Your task to perform on an android device: open a new tab in the chrome app Image 0: 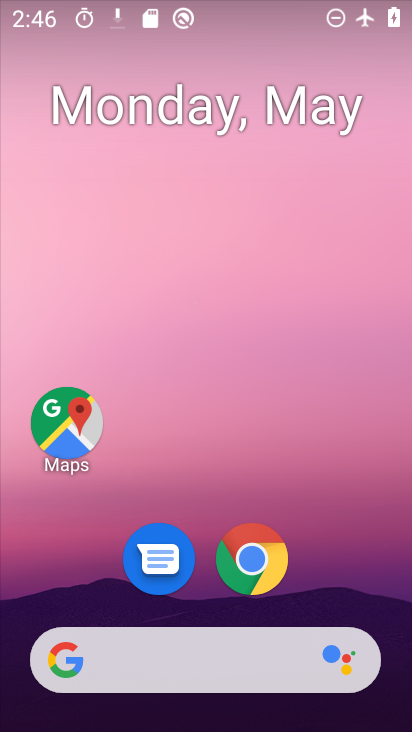
Step 0: drag from (188, 565) to (388, 213)
Your task to perform on an android device: open a new tab in the chrome app Image 1: 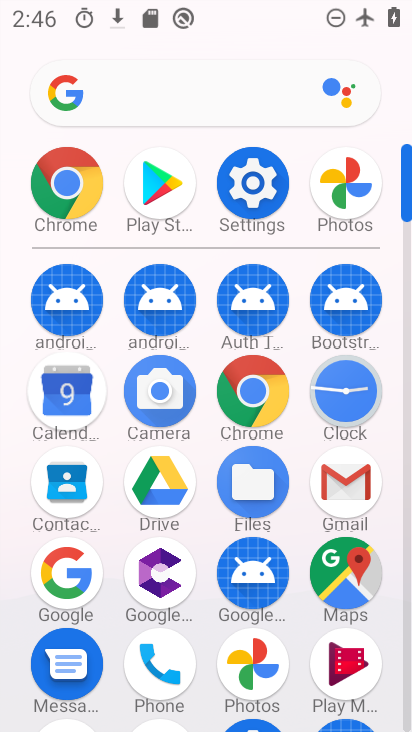
Step 1: click (251, 388)
Your task to perform on an android device: open a new tab in the chrome app Image 2: 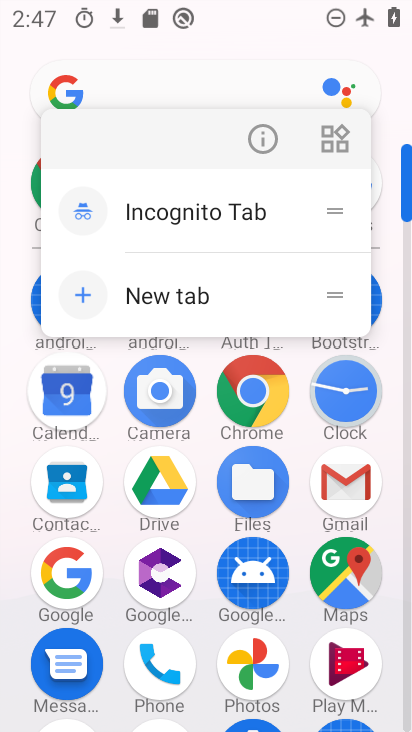
Step 2: click (259, 158)
Your task to perform on an android device: open a new tab in the chrome app Image 3: 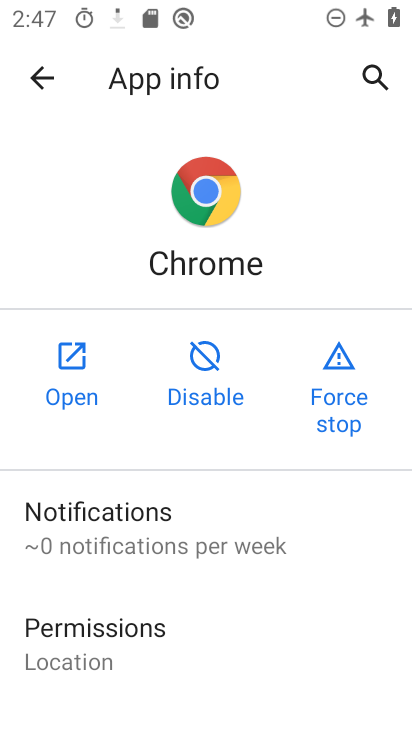
Step 3: click (71, 360)
Your task to perform on an android device: open a new tab in the chrome app Image 4: 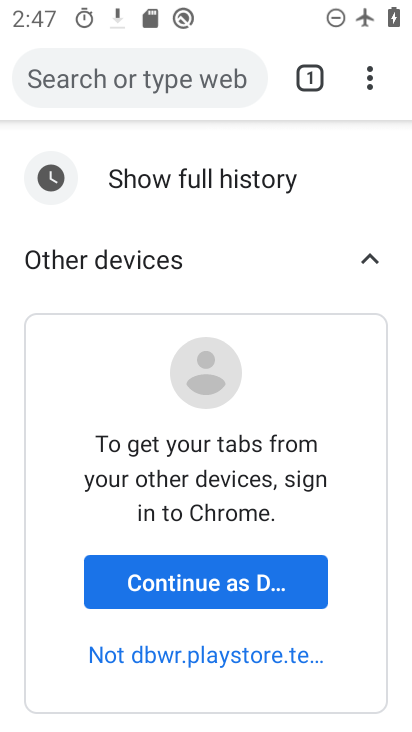
Step 4: click (311, 86)
Your task to perform on an android device: open a new tab in the chrome app Image 5: 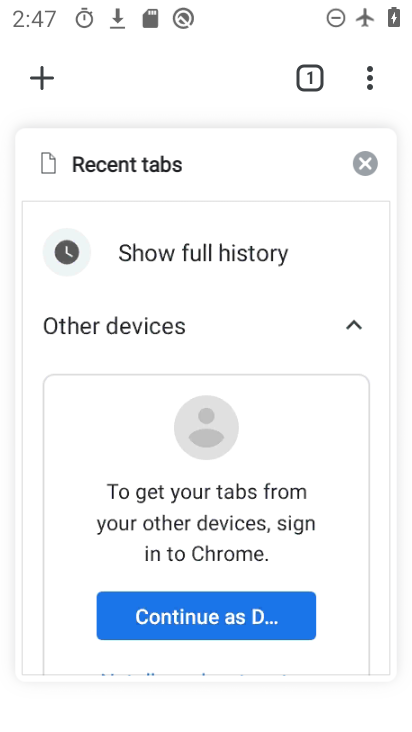
Step 5: click (48, 76)
Your task to perform on an android device: open a new tab in the chrome app Image 6: 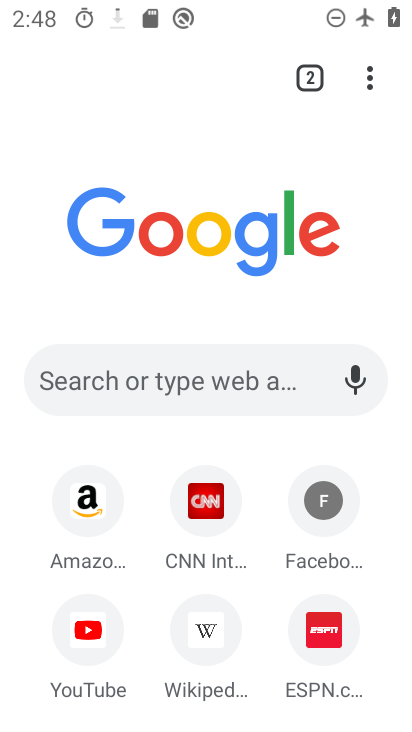
Step 6: click (304, 81)
Your task to perform on an android device: open a new tab in the chrome app Image 7: 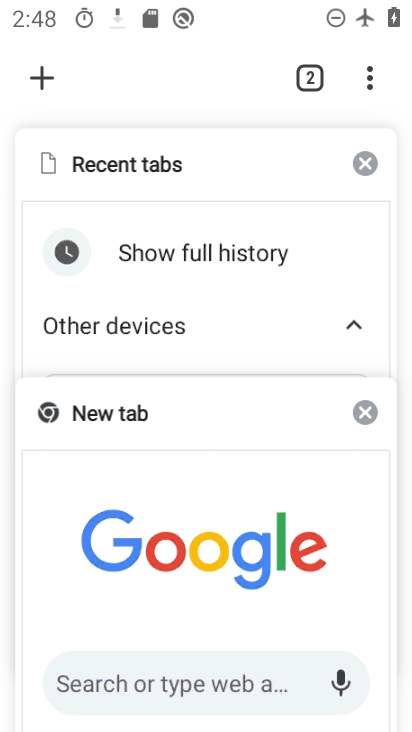
Step 7: drag from (198, 534) to (258, 341)
Your task to perform on an android device: open a new tab in the chrome app Image 8: 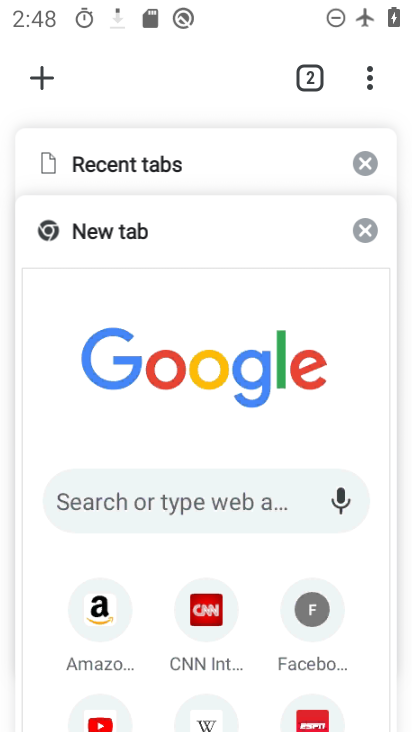
Step 8: drag from (272, 569) to (273, 316)
Your task to perform on an android device: open a new tab in the chrome app Image 9: 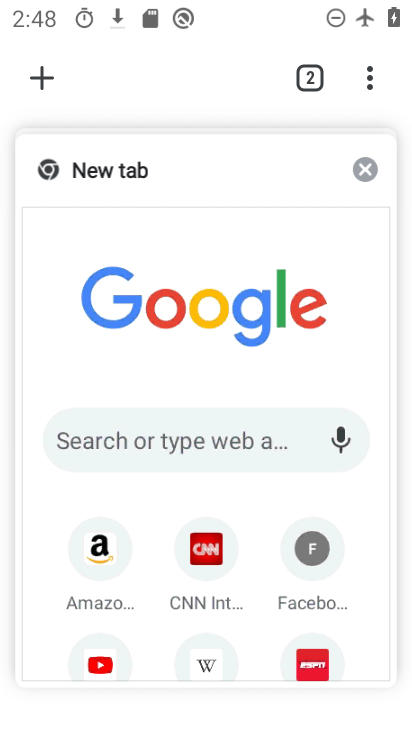
Step 9: click (253, 288)
Your task to perform on an android device: open a new tab in the chrome app Image 10: 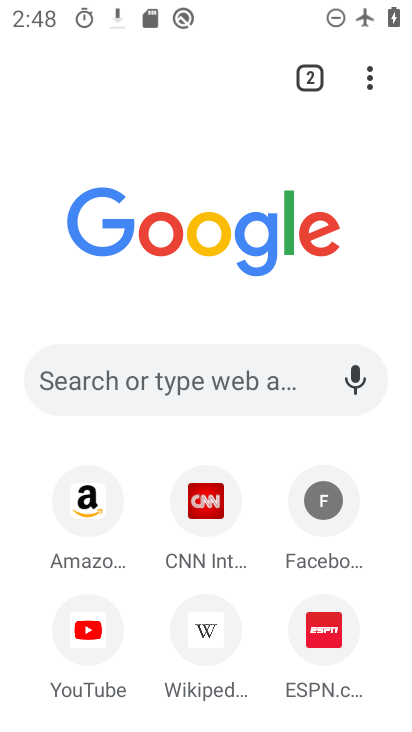
Step 10: drag from (260, 599) to (295, 333)
Your task to perform on an android device: open a new tab in the chrome app Image 11: 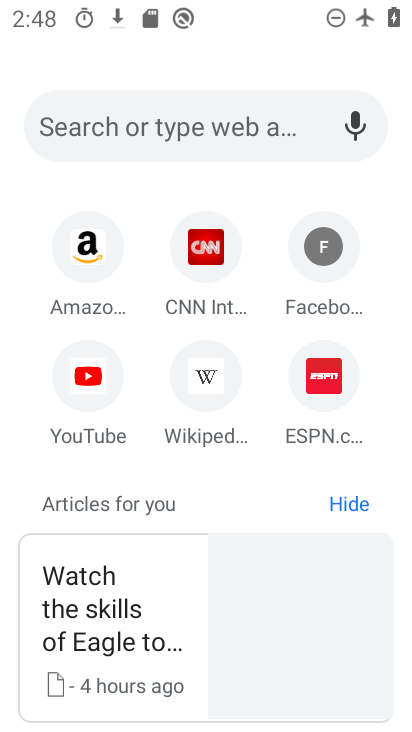
Step 11: drag from (277, 262) to (269, 438)
Your task to perform on an android device: open a new tab in the chrome app Image 12: 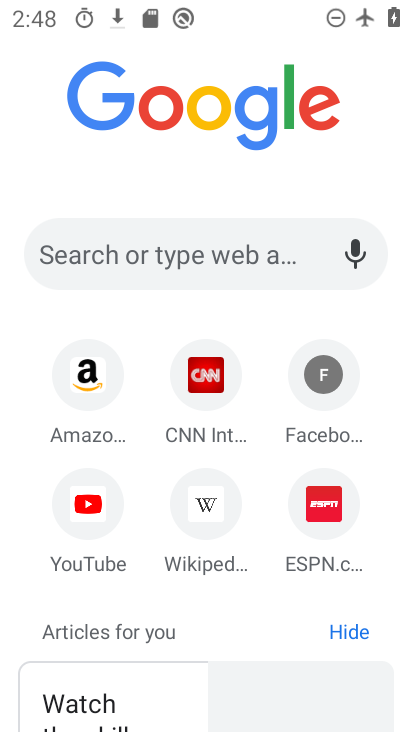
Step 12: drag from (275, 193) to (271, 260)
Your task to perform on an android device: open a new tab in the chrome app Image 13: 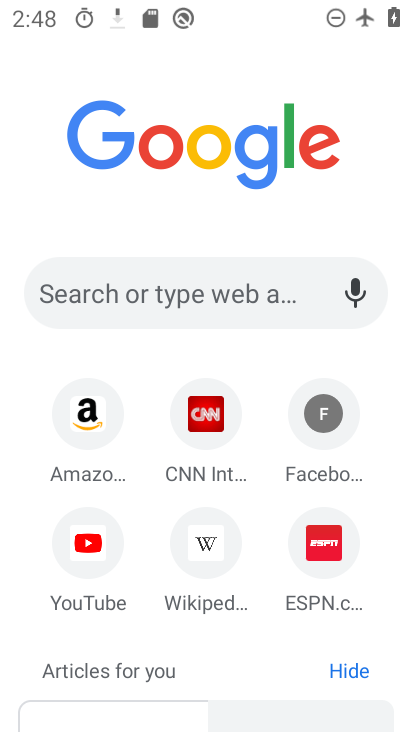
Step 13: drag from (319, 195) to (296, 441)
Your task to perform on an android device: open a new tab in the chrome app Image 14: 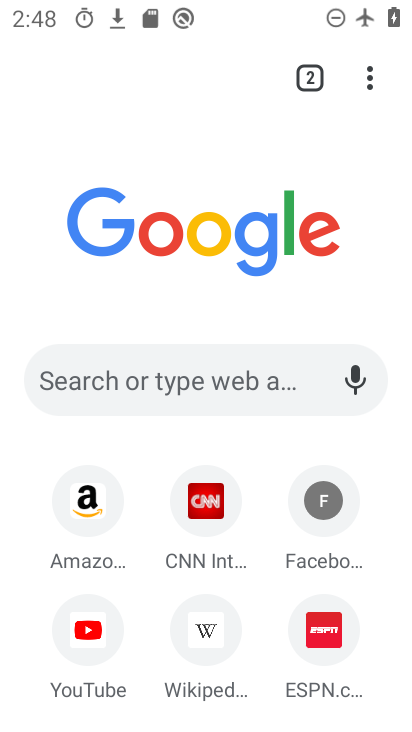
Step 14: click (323, 80)
Your task to perform on an android device: open a new tab in the chrome app Image 15: 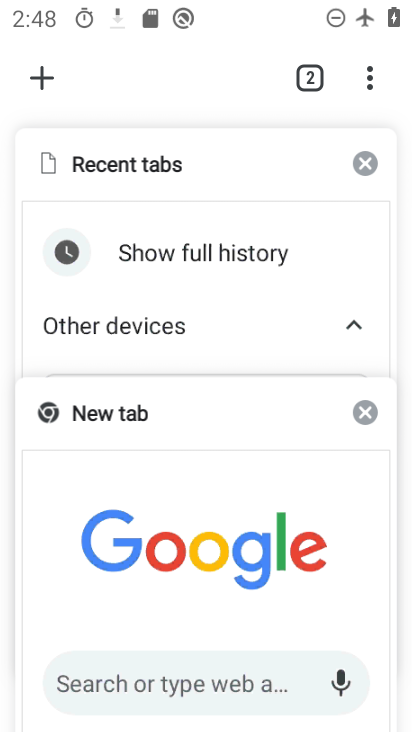
Step 15: click (35, 67)
Your task to perform on an android device: open a new tab in the chrome app Image 16: 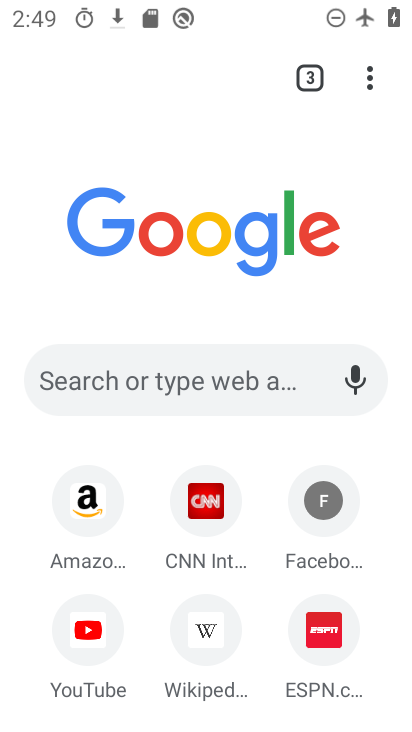
Step 16: task complete